Your task to perform on an android device: Go to eBay Image 0: 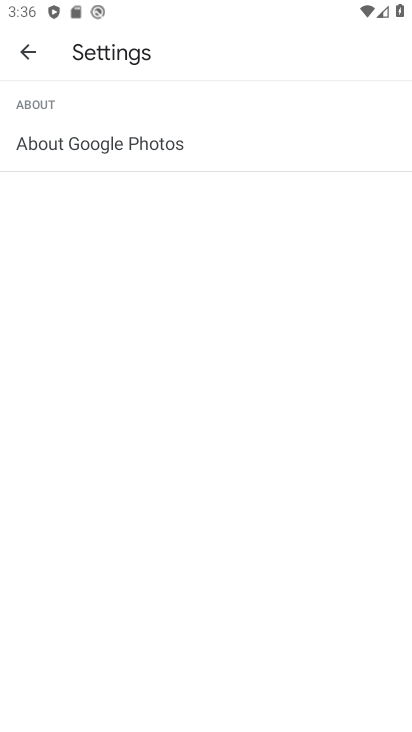
Step 0: press home button
Your task to perform on an android device: Go to eBay Image 1: 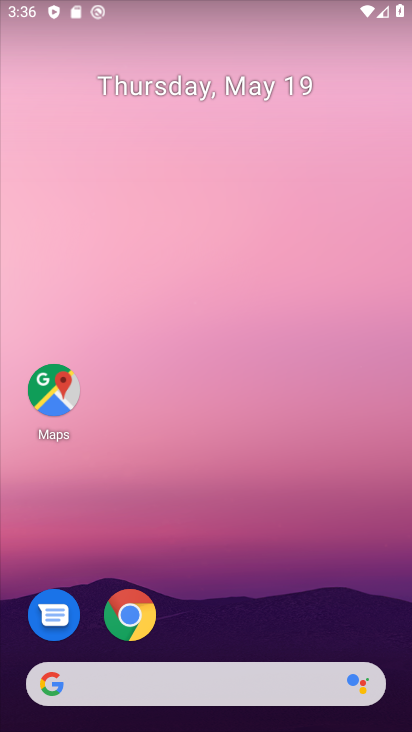
Step 1: click (138, 612)
Your task to perform on an android device: Go to eBay Image 2: 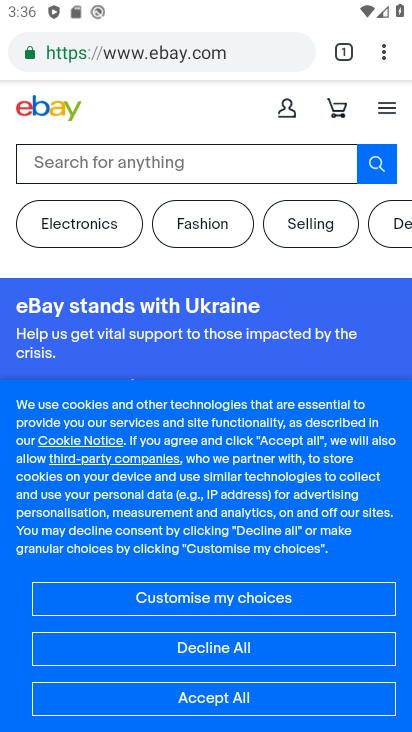
Step 2: task complete